Your task to perform on an android device: toggle translation in the chrome app Image 0: 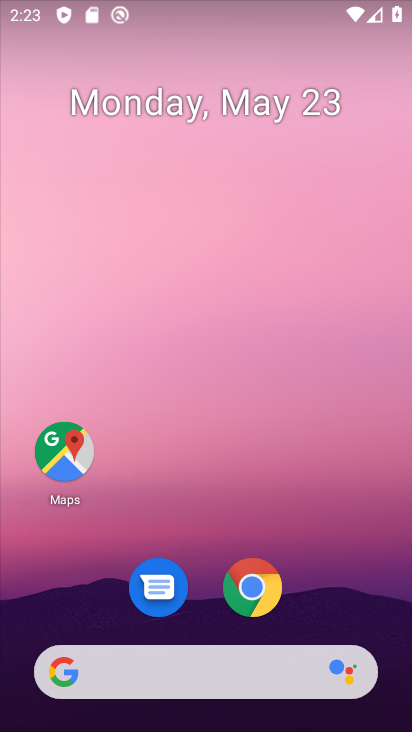
Step 0: click (250, 585)
Your task to perform on an android device: toggle translation in the chrome app Image 1: 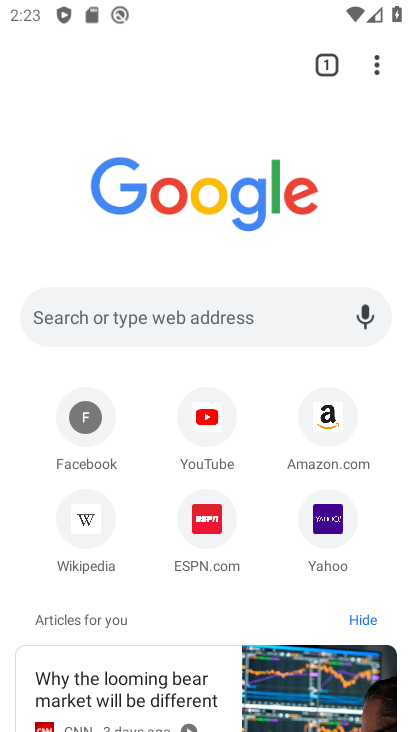
Step 1: click (375, 69)
Your task to perform on an android device: toggle translation in the chrome app Image 2: 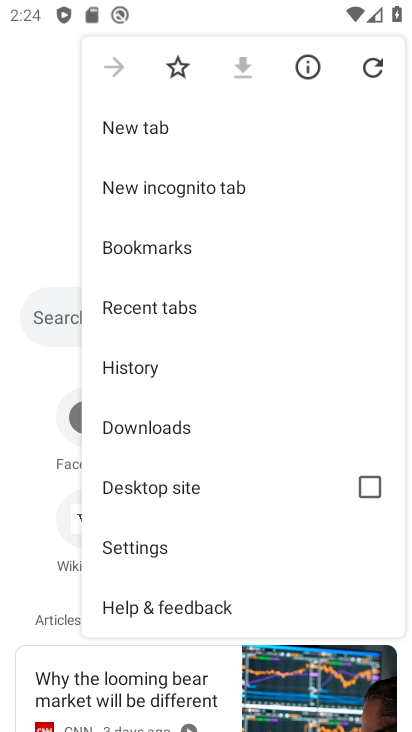
Step 2: click (154, 546)
Your task to perform on an android device: toggle translation in the chrome app Image 3: 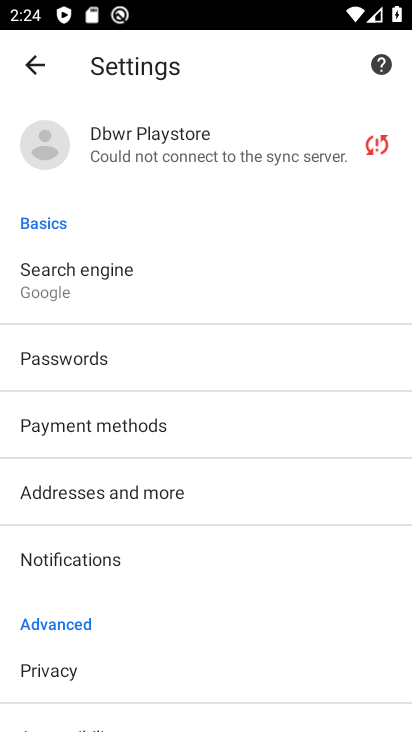
Step 3: drag from (158, 649) to (297, 100)
Your task to perform on an android device: toggle translation in the chrome app Image 4: 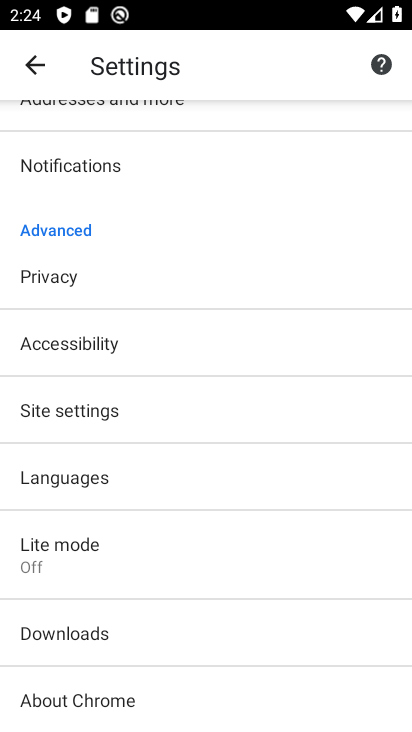
Step 4: click (68, 413)
Your task to perform on an android device: toggle translation in the chrome app Image 5: 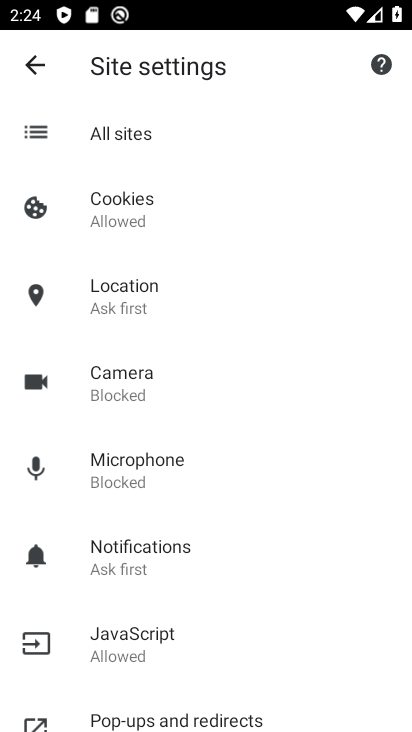
Step 5: click (38, 61)
Your task to perform on an android device: toggle translation in the chrome app Image 6: 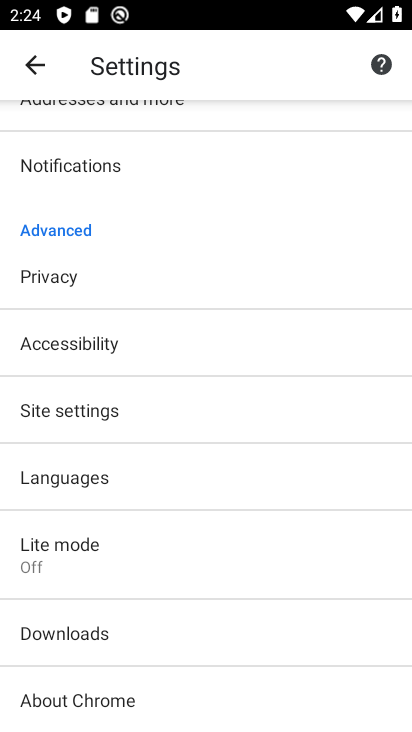
Step 6: click (93, 482)
Your task to perform on an android device: toggle translation in the chrome app Image 7: 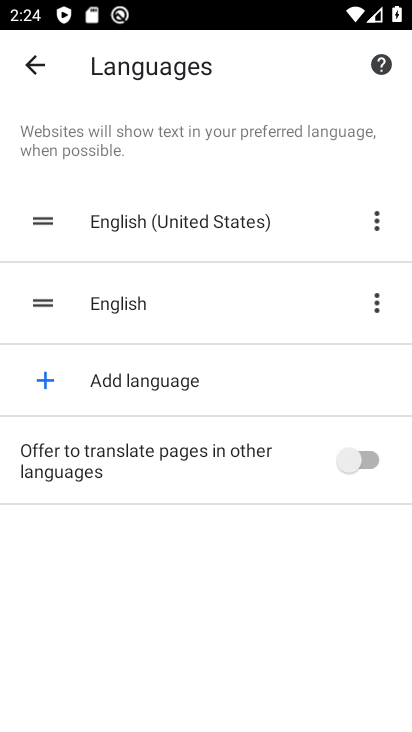
Step 7: click (372, 460)
Your task to perform on an android device: toggle translation in the chrome app Image 8: 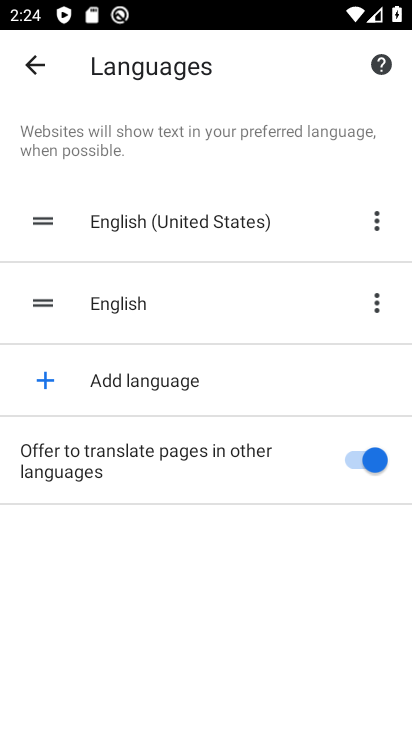
Step 8: task complete